Your task to perform on an android device: Go to wifi settings Image 0: 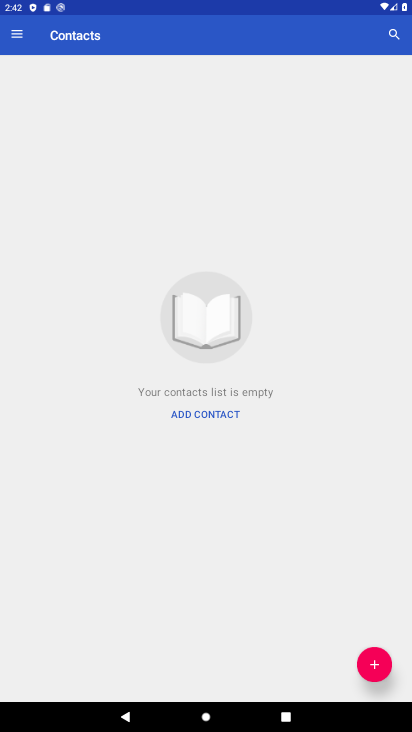
Step 0: press home button
Your task to perform on an android device: Go to wifi settings Image 1: 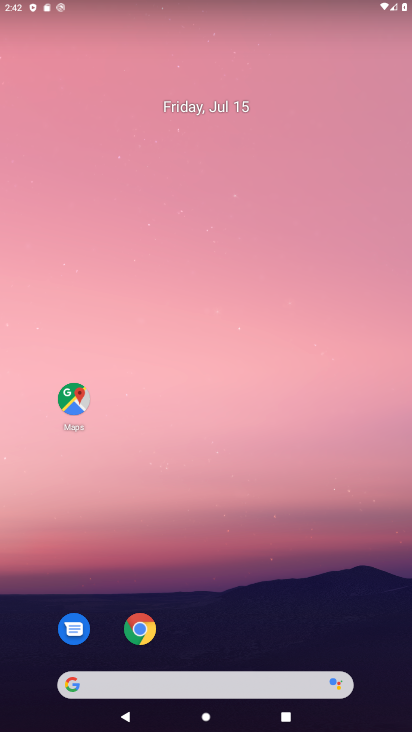
Step 1: drag from (207, 636) to (173, 130)
Your task to perform on an android device: Go to wifi settings Image 2: 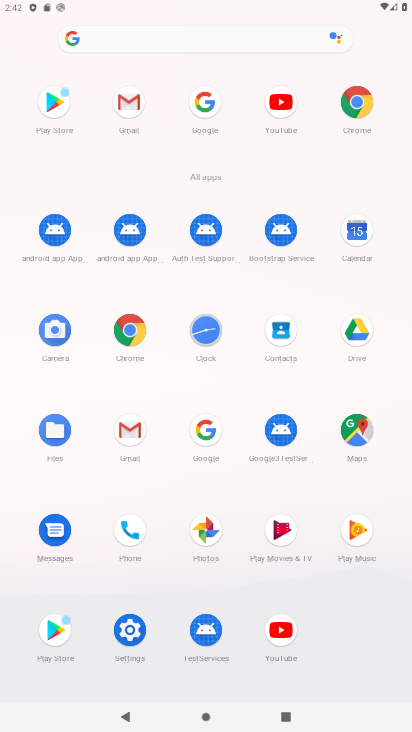
Step 2: click (120, 627)
Your task to perform on an android device: Go to wifi settings Image 3: 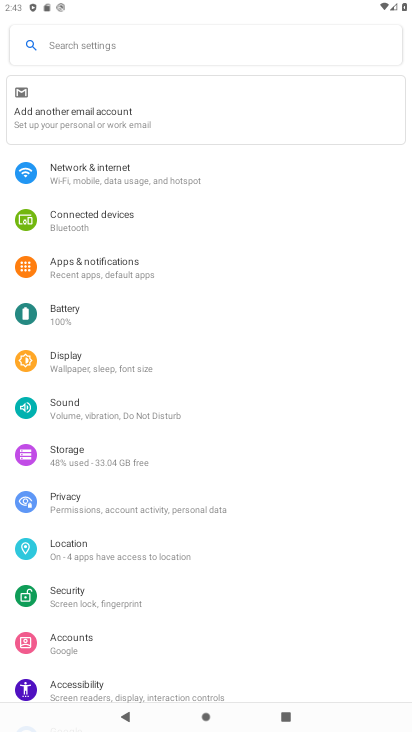
Step 3: click (83, 178)
Your task to perform on an android device: Go to wifi settings Image 4: 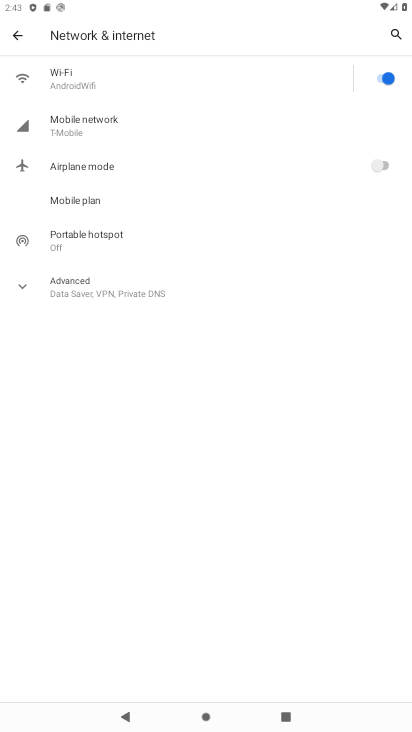
Step 4: click (77, 66)
Your task to perform on an android device: Go to wifi settings Image 5: 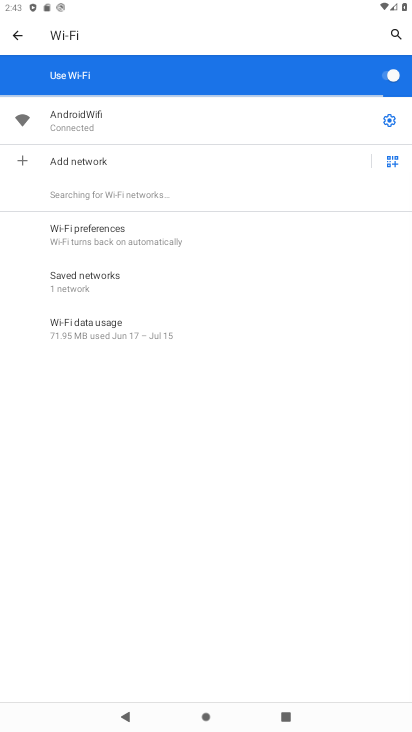
Step 5: task complete